Your task to perform on an android device: open app "Google Sheets" (install if not already installed) Image 0: 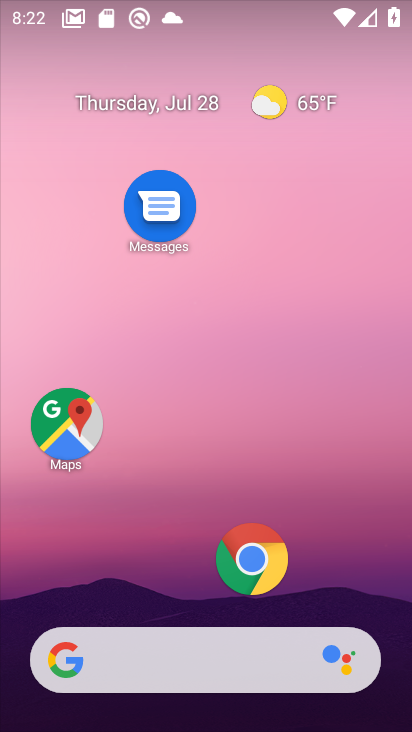
Step 0: drag from (164, 509) to (225, 2)
Your task to perform on an android device: open app "Google Sheets" (install if not already installed) Image 1: 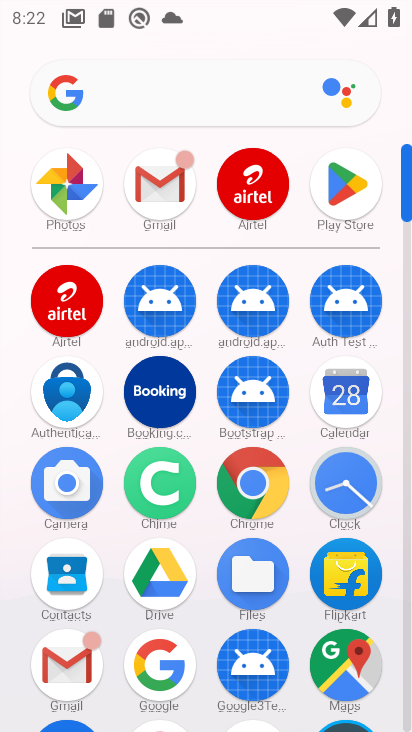
Step 1: click (353, 187)
Your task to perform on an android device: open app "Google Sheets" (install if not already installed) Image 2: 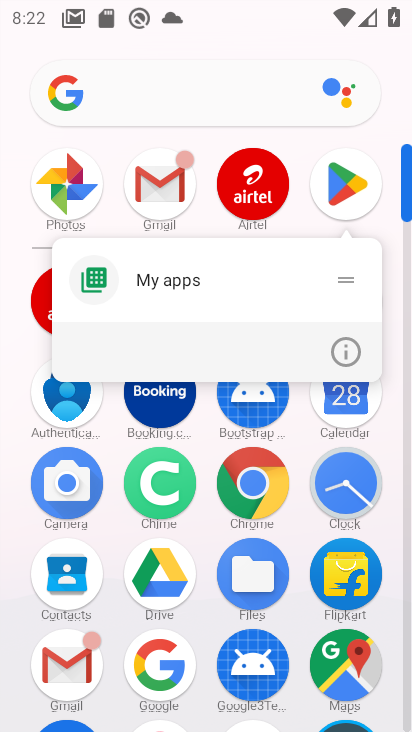
Step 2: click (346, 195)
Your task to perform on an android device: open app "Google Sheets" (install if not already installed) Image 3: 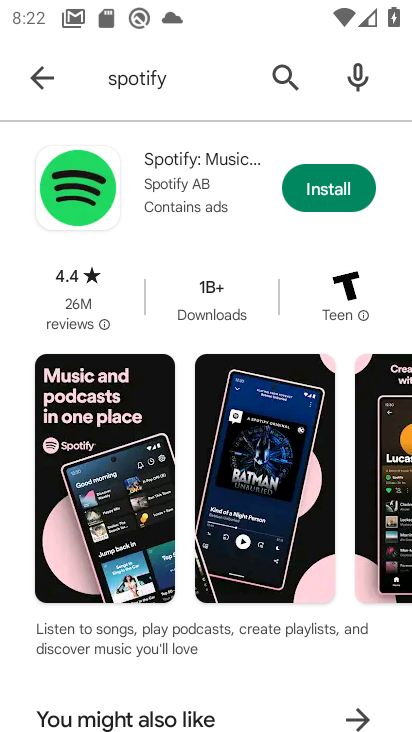
Step 3: click (188, 89)
Your task to perform on an android device: open app "Google Sheets" (install if not already installed) Image 4: 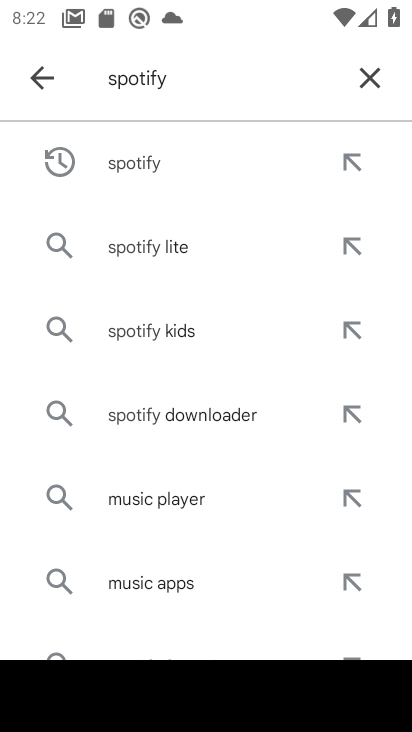
Step 4: click (366, 80)
Your task to perform on an android device: open app "Google Sheets" (install if not already installed) Image 5: 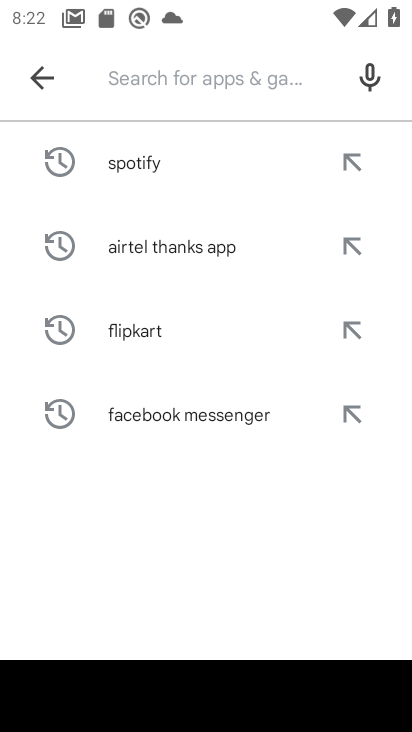
Step 5: type "google sheets"
Your task to perform on an android device: open app "Google Sheets" (install if not already installed) Image 6: 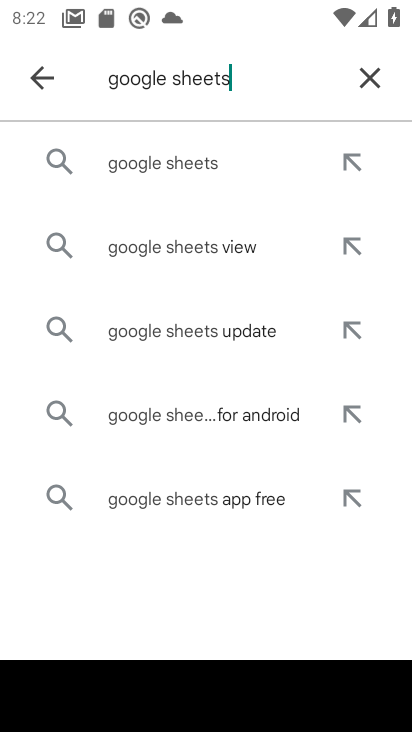
Step 6: click (162, 178)
Your task to perform on an android device: open app "Google Sheets" (install if not already installed) Image 7: 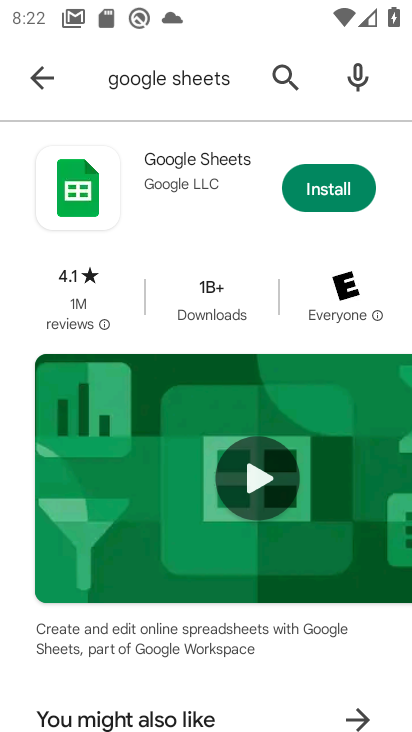
Step 7: click (322, 188)
Your task to perform on an android device: open app "Google Sheets" (install if not already installed) Image 8: 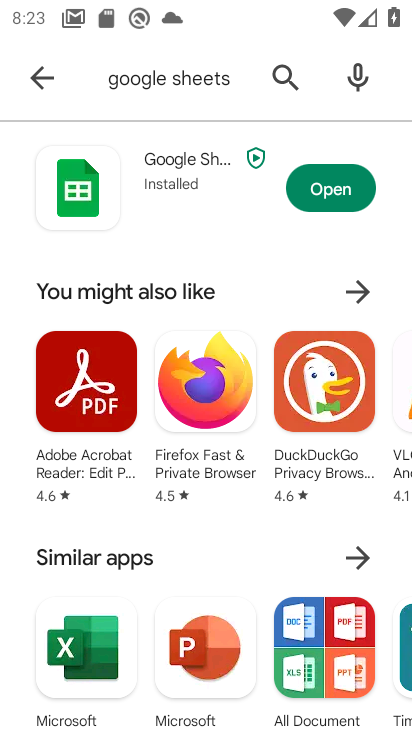
Step 8: click (344, 194)
Your task to perform on an android device: open app "Google Sheets" (install if not already installed) Image 9: 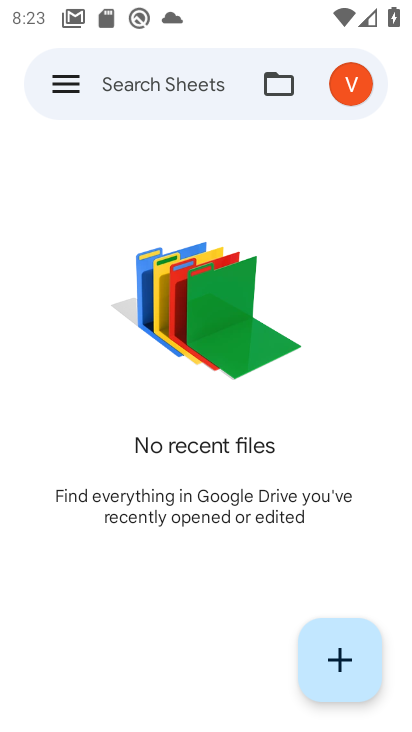
Step 9: task complete